Your task to perform on an android device: add a label to a message in the gmail app Image 0: 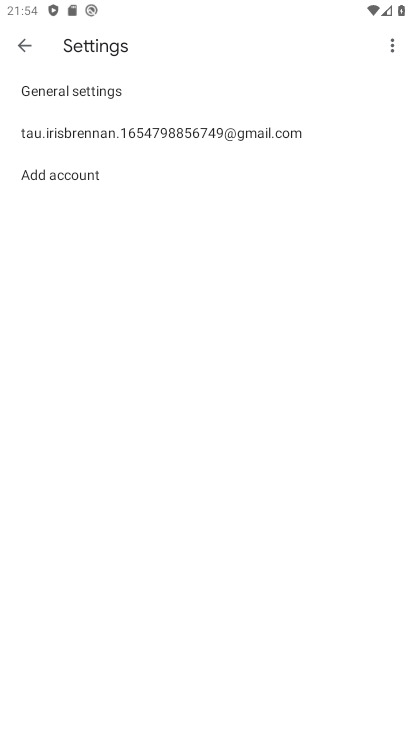
Step 0: press home button
Your task to perform on an android device: add a label to a message in the gmail app Image 1: 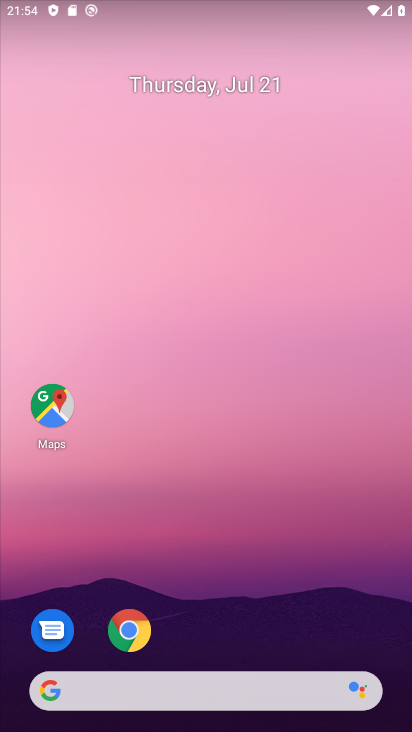
Step 1: drag from (205, 655) to (144, 87)
Your task to perform on an android device: add a label to a message in the gmail app Image 2: 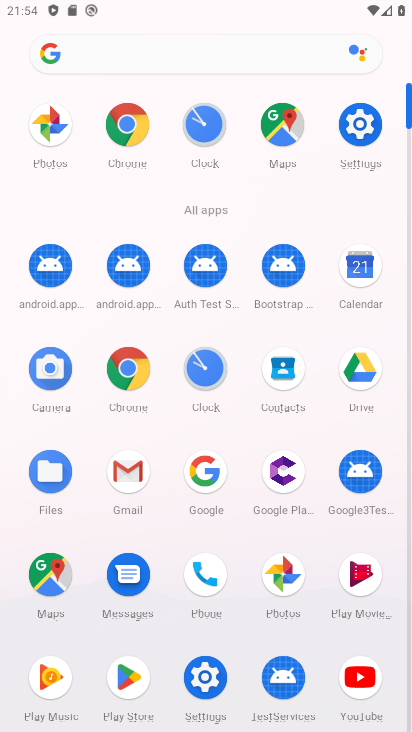
Step 2: click (113, 471)
Your task to perform on an android device: add a label to a message in the gmail app Image 3: 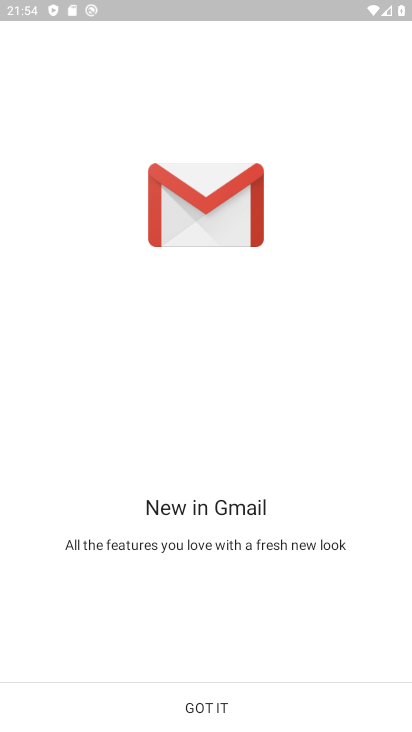
Step 3: click (218, 704)
Your task to perform on an android device: add a label to a message in the gmail app Image 4: 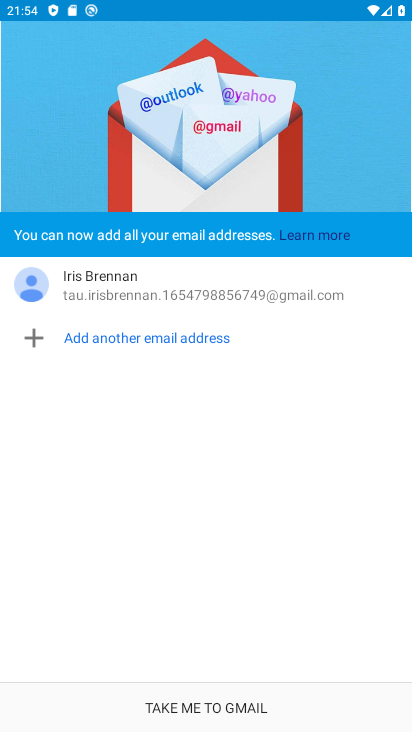
Step 4: click (210, 694)
Your task to perform on an android device: add a label to a message in the gmail app Image 5: 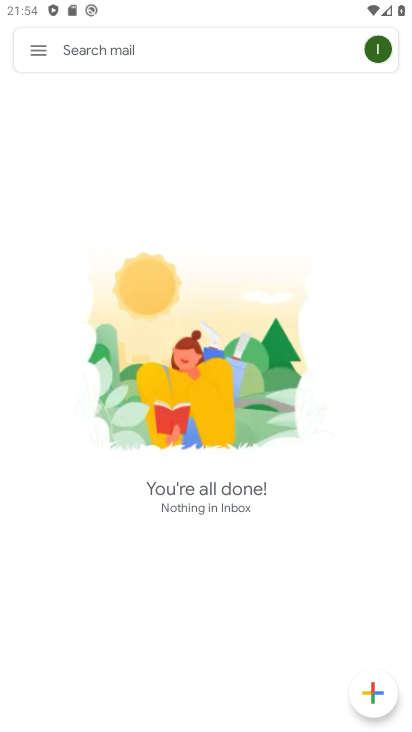
Step 5: task complete